Your task to perform on an android device: see sites visited before in the chrome app Image 0: 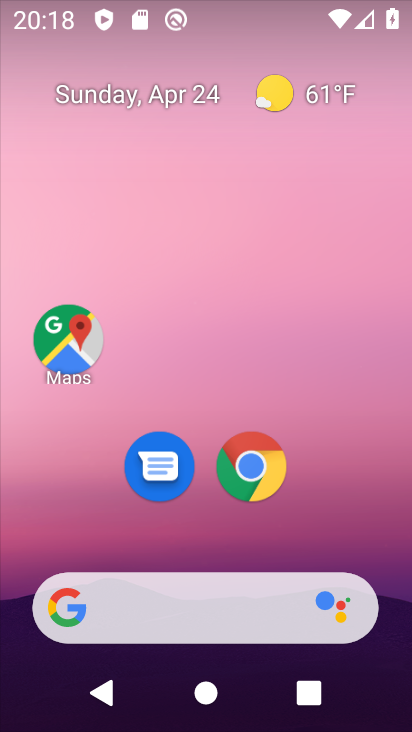
Step 0: click (266, 453)
Your task to perform on an android device: see sites visited before in the chrome app Image 1: 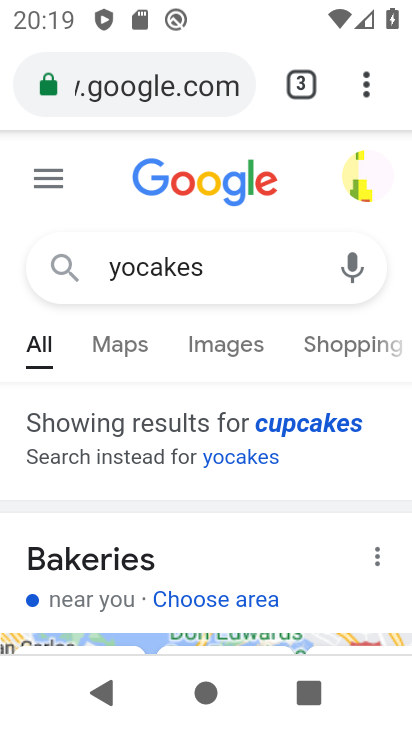
Step 1: click (374, 90)
Your task to perform on an android device: see sites visited before in the chrome app Image 2: 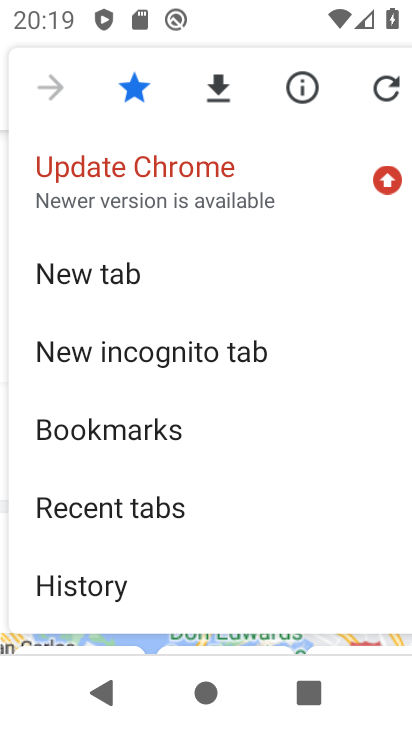
Step 2: click (95, 578)
Your task to perform on an android device: see sites visited before in the chrome app Image 3: 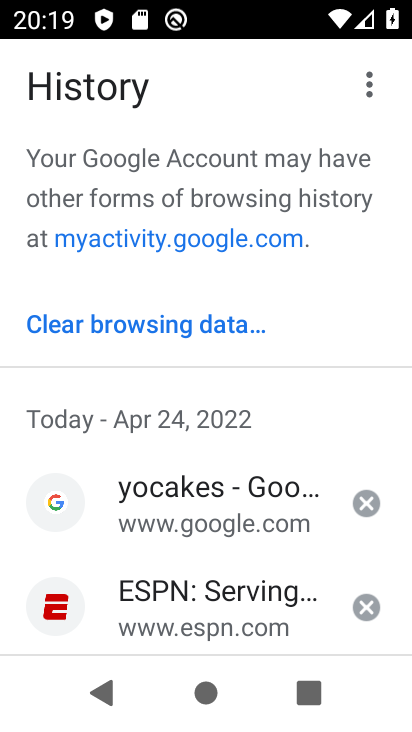
Step 3: task complete